Your task to perform on an android device: turn off sleep mode Image 0: 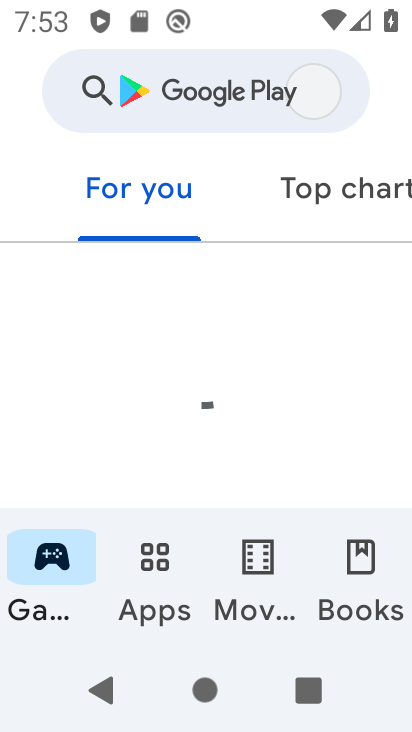
Step 0: press home button
Your task to perform on an android device: turn off sleep mode Image 1: 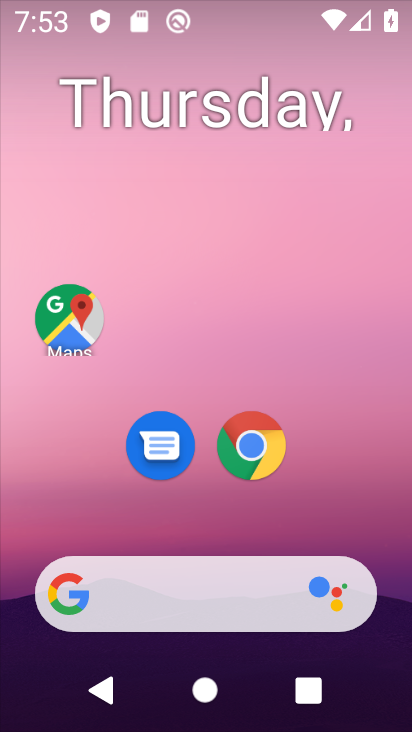
Step 1: drag from (271, 270) to (317, 200)
Your task to perform on an android device: turn off sleep mode Image 2: 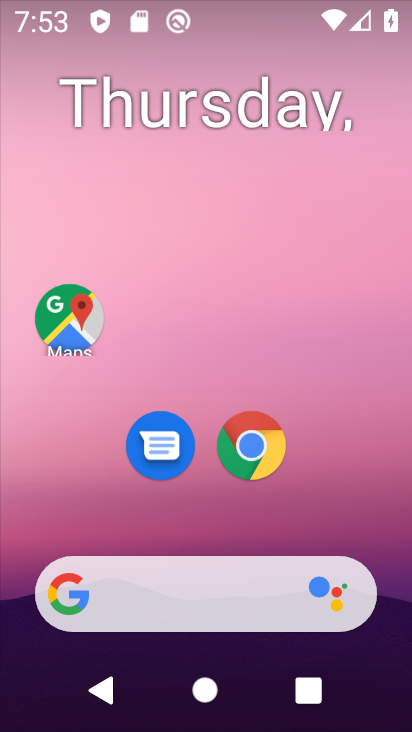
Step 2: drag from (0, 724) to (194, 205)
Your task to perform on an android device: turn off sleep mode Image 3: 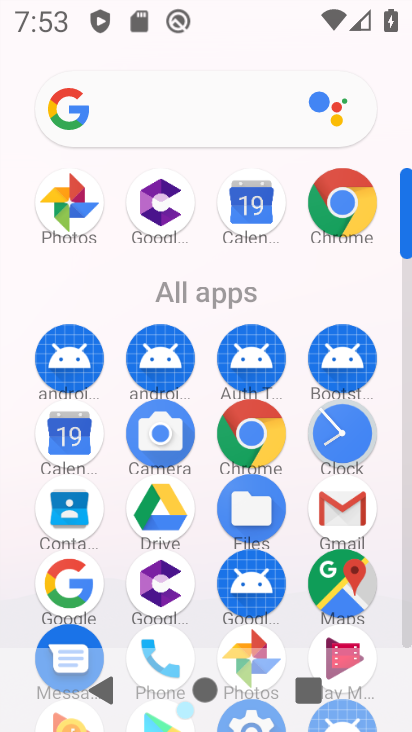
Step 3: drag from (78, 515) to (232, 188)
Your task to perform on an android device: turn off sleep mode Image 4: 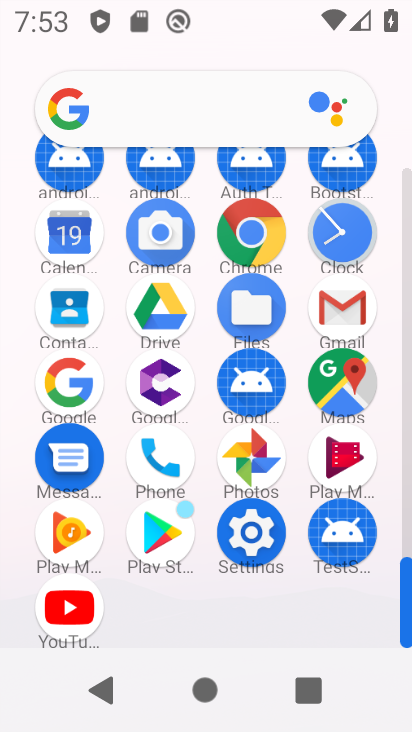
Step 4: click (262, 532)
Your task to perform on an android device: turn off sleep mode Image 5: 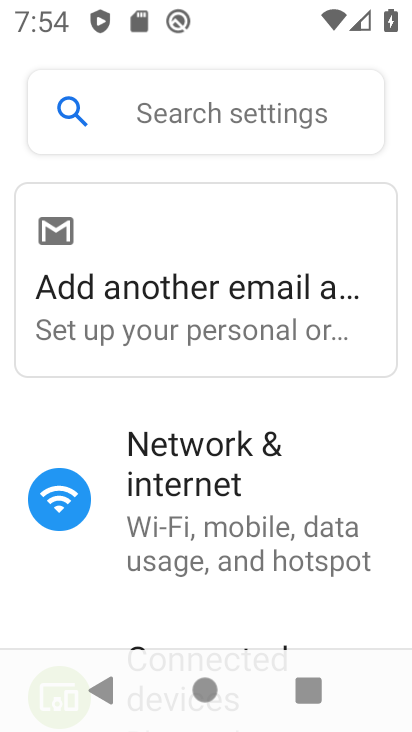
Step 5: drag from (56, 449) to (227, 176)
Your task to perform on an android device: turn off sleep mode Image 6: 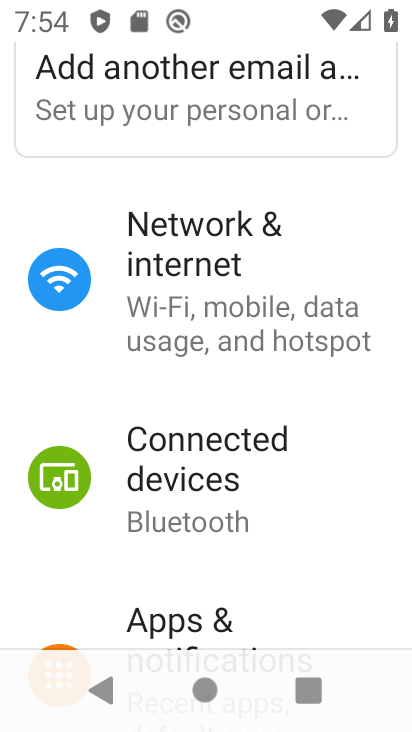
Step 6: drag from (82, 539) to (337, 70)
Your task to perform on an android device: turn off sleep mode Image 7: 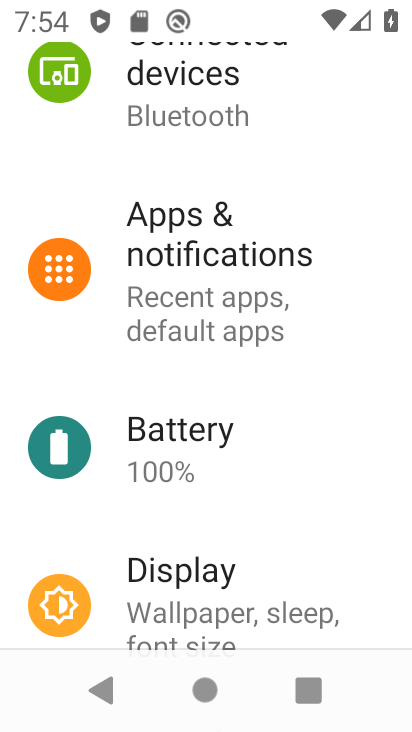
Step 7: click (251, 600)
Your task to perform on an android device: turn off sleep mode Image 8: 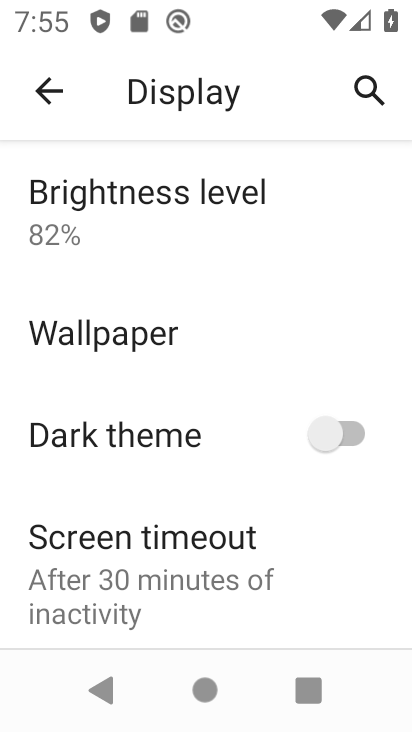
Step 8: task complete